Your task to perform on an android device: check the backup settings in the google photos Image 0: 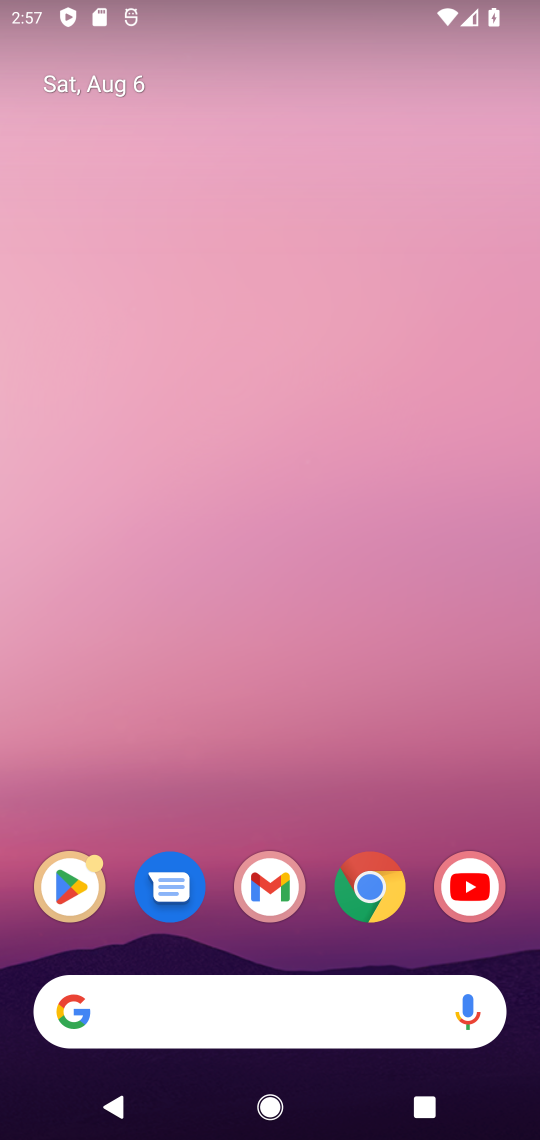
Step 0: task impossible